Your task to perform on an android device: Open Youtube and go to "Your channel" Image 0: 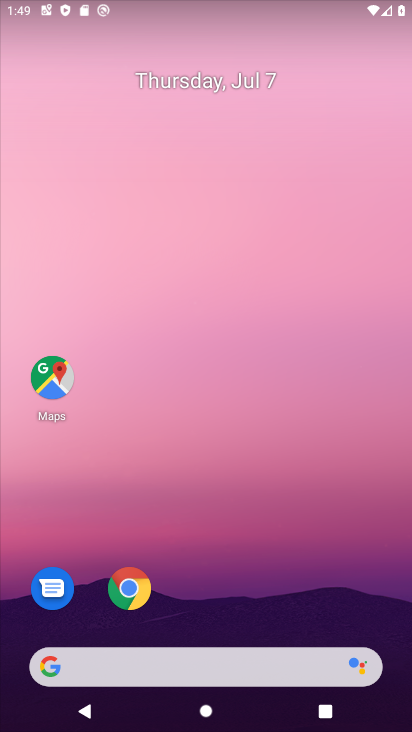
Step 0: drag from (249, 495) to (300, 6)
Your task to perform on an android device: Open Youtube and go to "Your channel" Image 1: 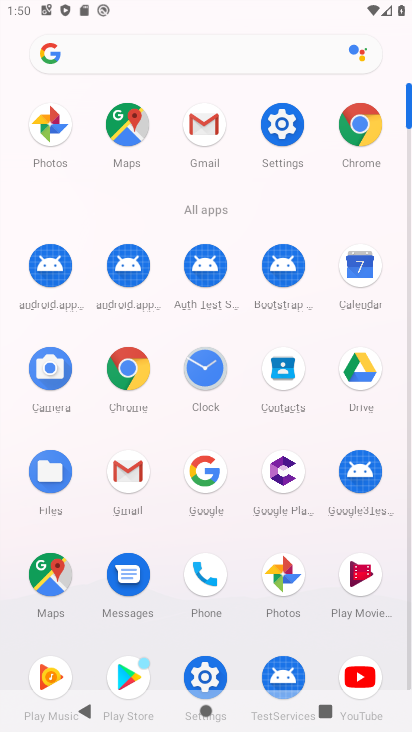
Step 1: click (372, 675)
Your task to perform on an android device: Open Youtube and go to "Your channel" Image 2: 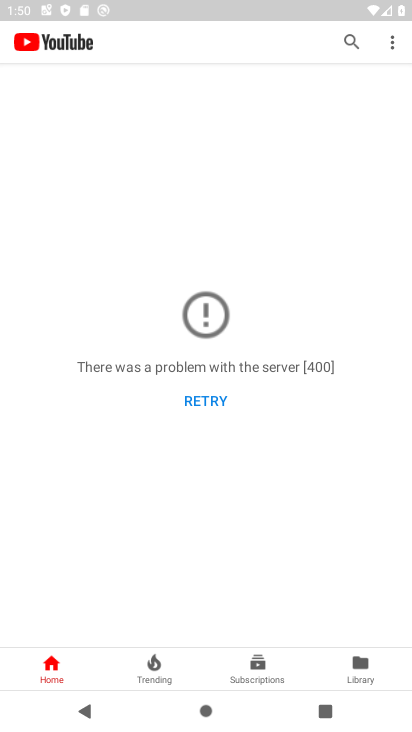
Step 2: click (356, 673)
Your task to perform on an android device: Open Youtube and go to "Your channel" Image 3: 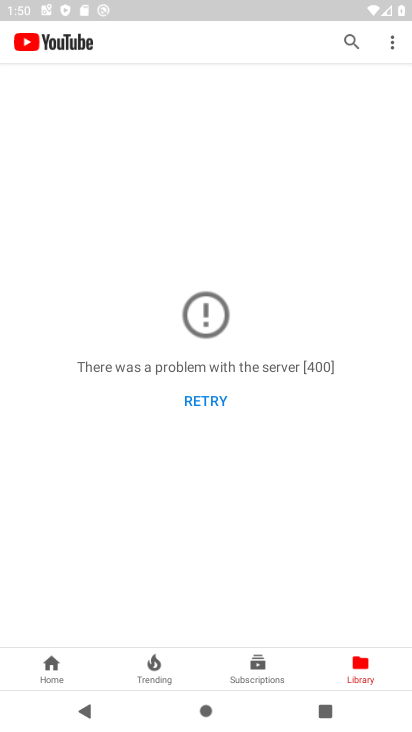
Step 3: task complete